Your task to perform on an android device: Go to Amazon Image 0: 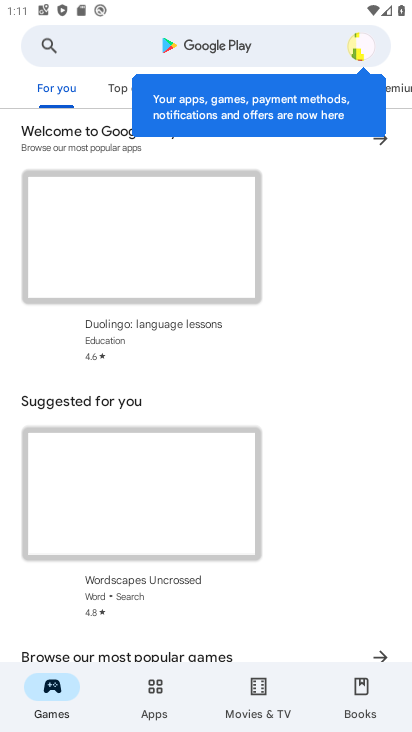
Step 0: press home button
Your task to perform on an android device: Go to Amazon Image 1: 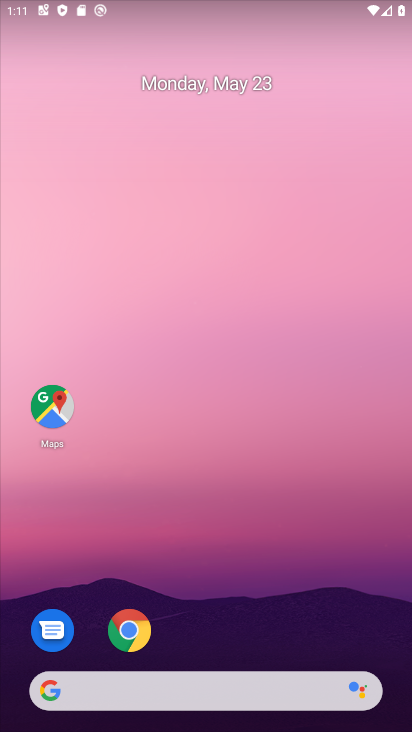
Step 1: drag from (333, 569) to (291, 134)
Your task to perform on an android device: Go to Amazon Image 2: 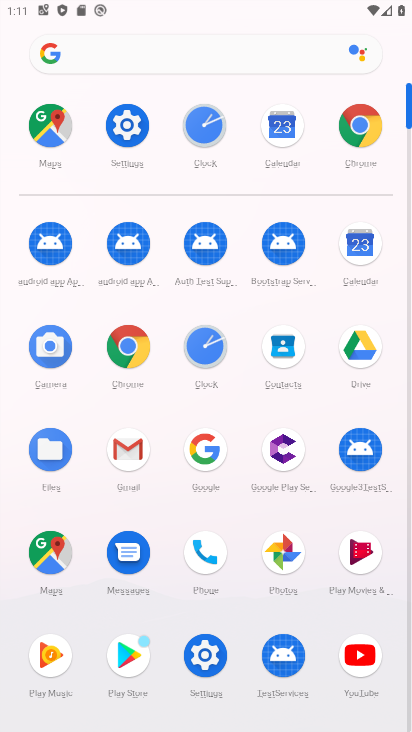
Step 2: click (145, 351)
Your task to perform on an android device: Go to Amazon Image 3: 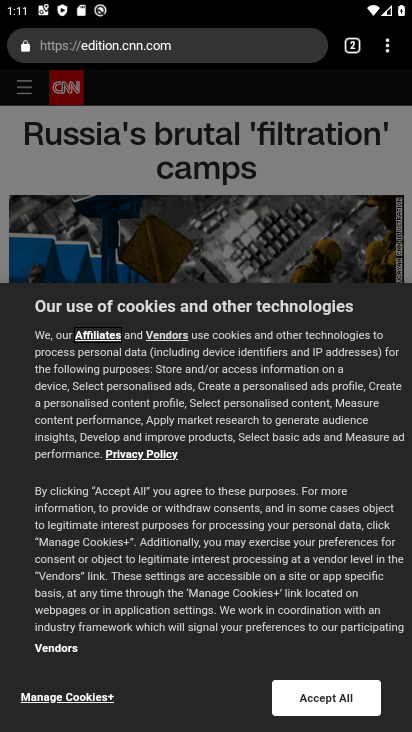
Step 3: click (174, 47)
Your task to perform on an android device: Go to Amazon Image 4: 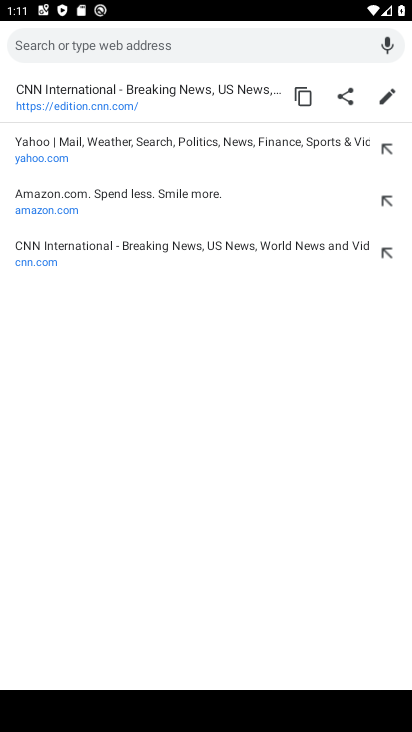
Step 4: click (123, 210)
Your task to perform on an android device: Go to Amazon Image 5: 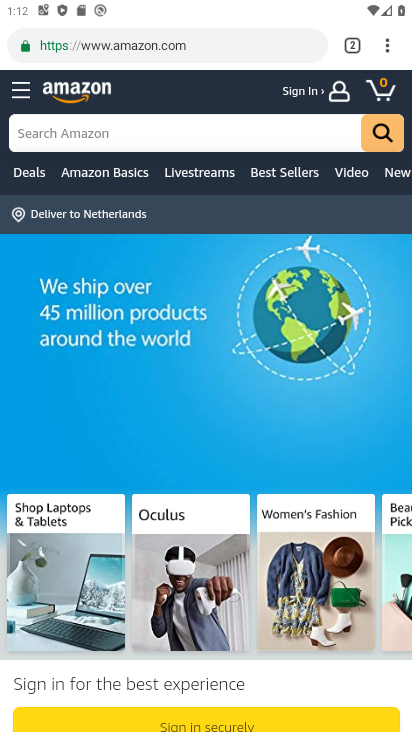
Step 5: task complete